Your task to perform on an android device: turn off location history Image 0: 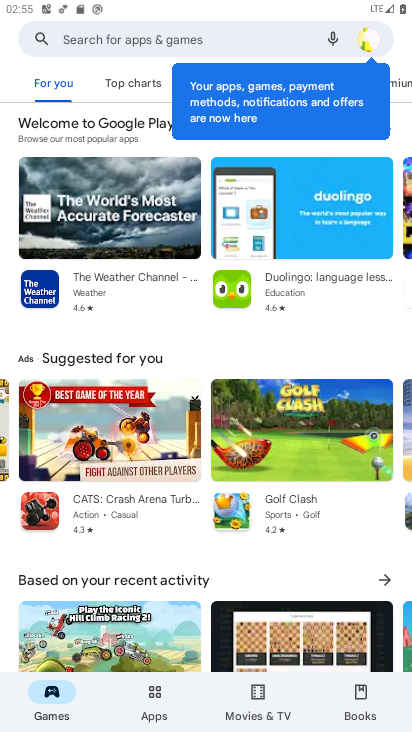
Step 0: press home button
Your task to perform on an android device: turn off location history Image 1: 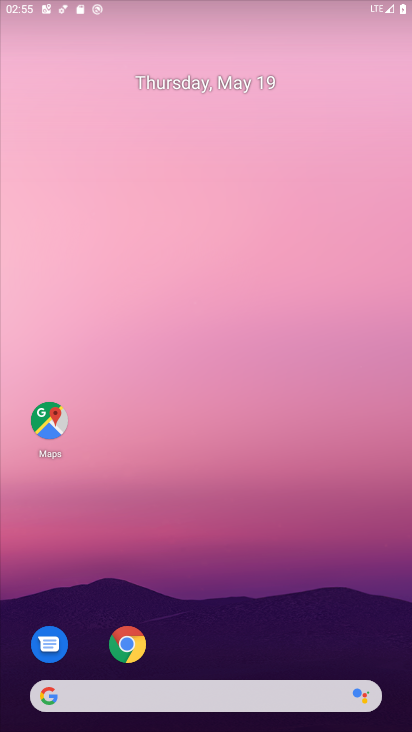
Step 1: drag from (311, 614) to (329, 176)
Your task to perform on an android device: turn off location history Image 2: 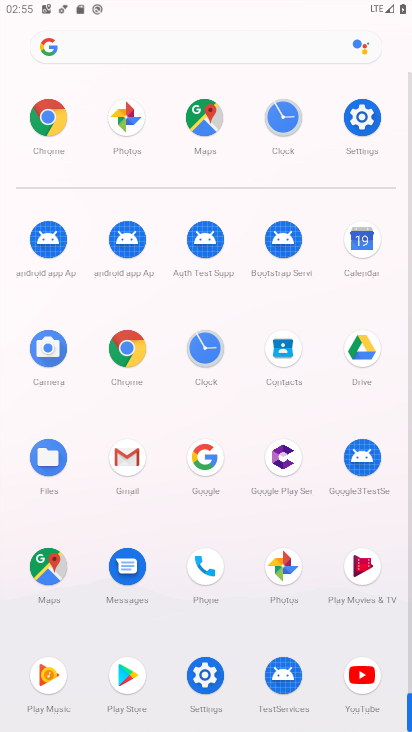
Step 2: click (359, 114)
Your task to perform on an android device: turn off location history Image 3: 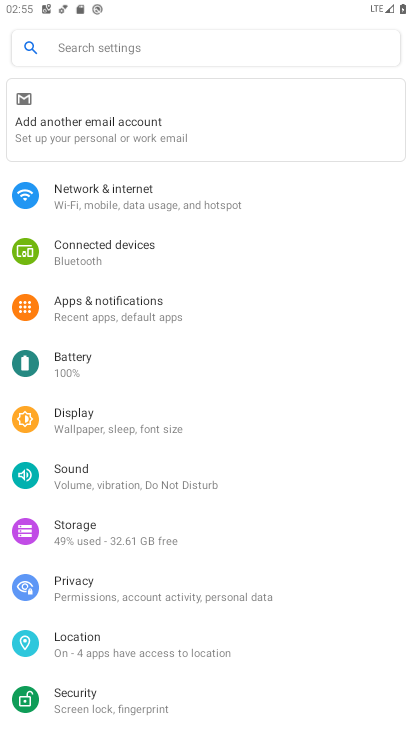
Step 3: click (132, 650)
Your task to perform on an android device: turn off location history Image 4: 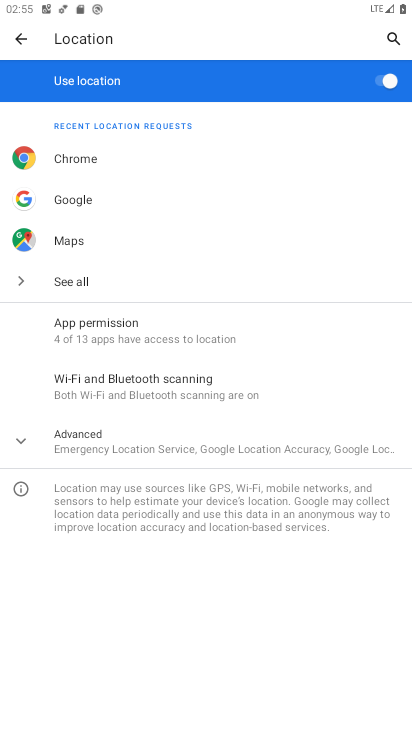
Step 4: click (140, 448)
Your task to perform on an android device: turn off location history Image 5: 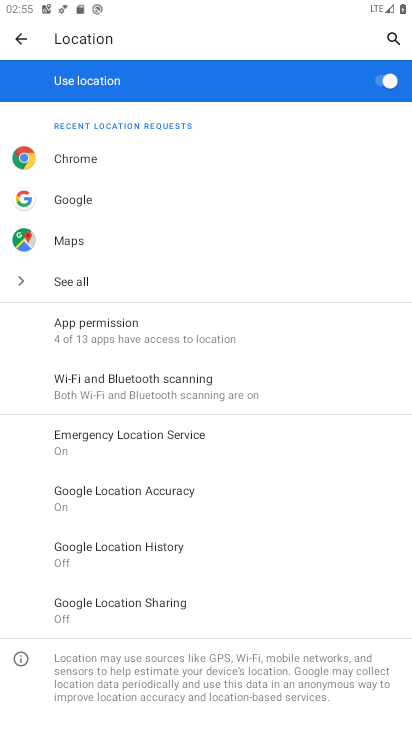
Step 5: click (179, 548)
Your task to perform on an android device: turn off location history Image 6: 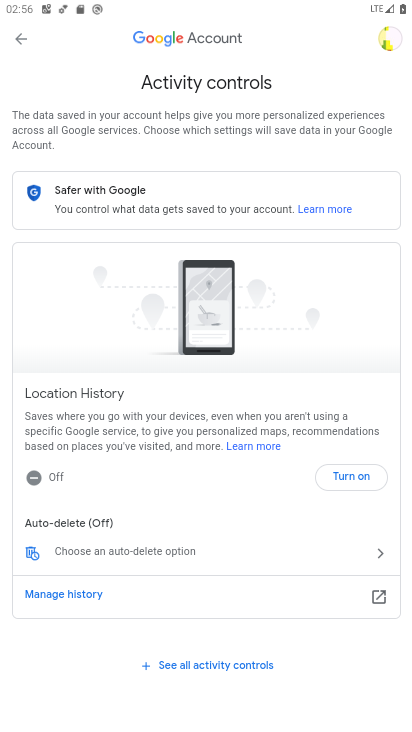
Step 6: task complete